Your task to perform on an android device: View the shopping cart on ebay.com. Search for "energizer triple a" on ebay.com, select the first entry, and add it to the cart. Image 0: 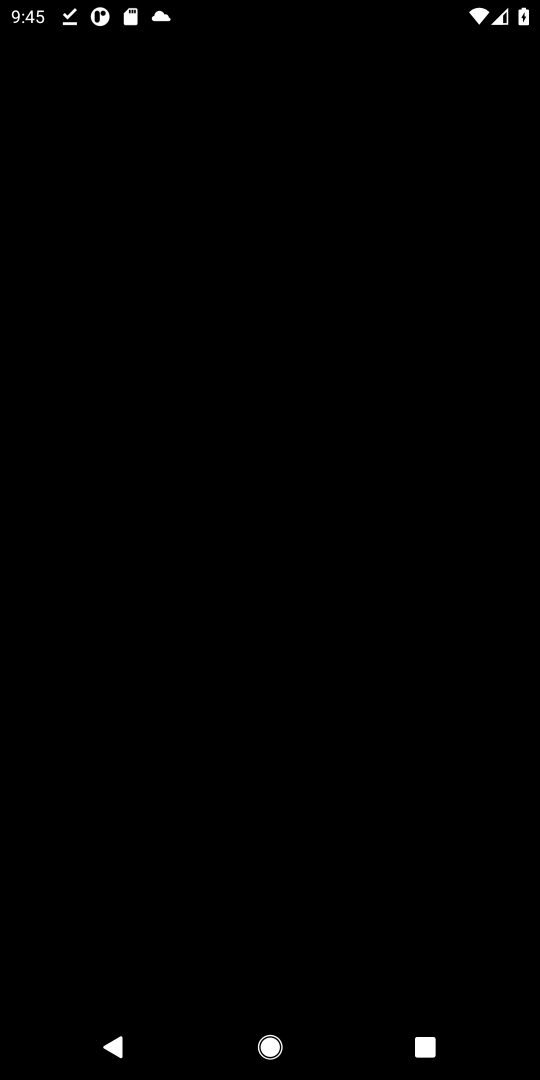
Step 0: press home button
Your task to perform on an android device: View the shopping cart on ebay.com. Search for "energizer triple a" on ebay.com, select the first entry, and add it to the cart. Image 1: 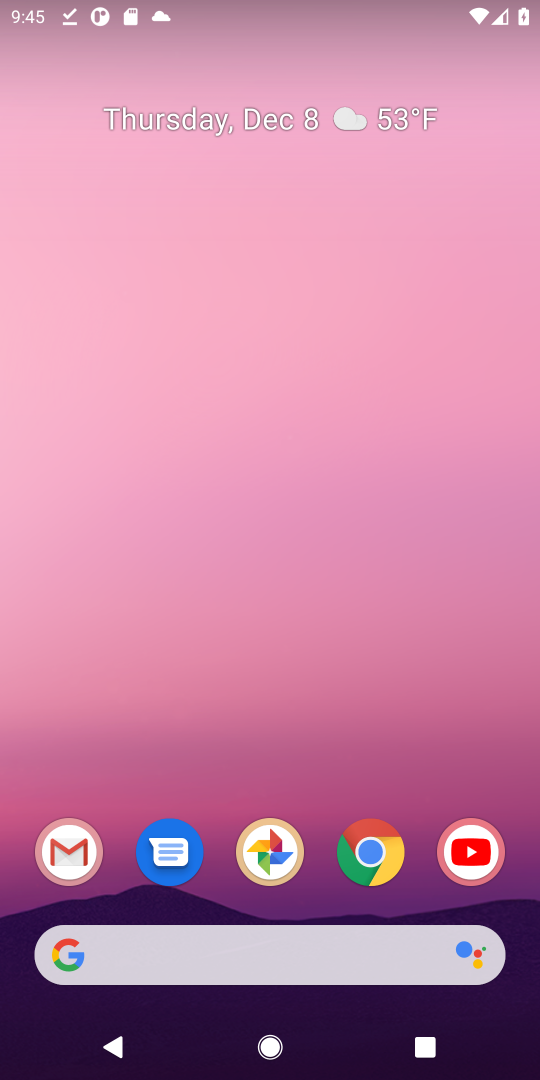
Step 1: click (255, 943)
Your task to perform on an android device: View the shopping cart on ebay.com. Search for "energizer triple a" on ebay.com, select the first entry, and add it to the cart. Image 2: 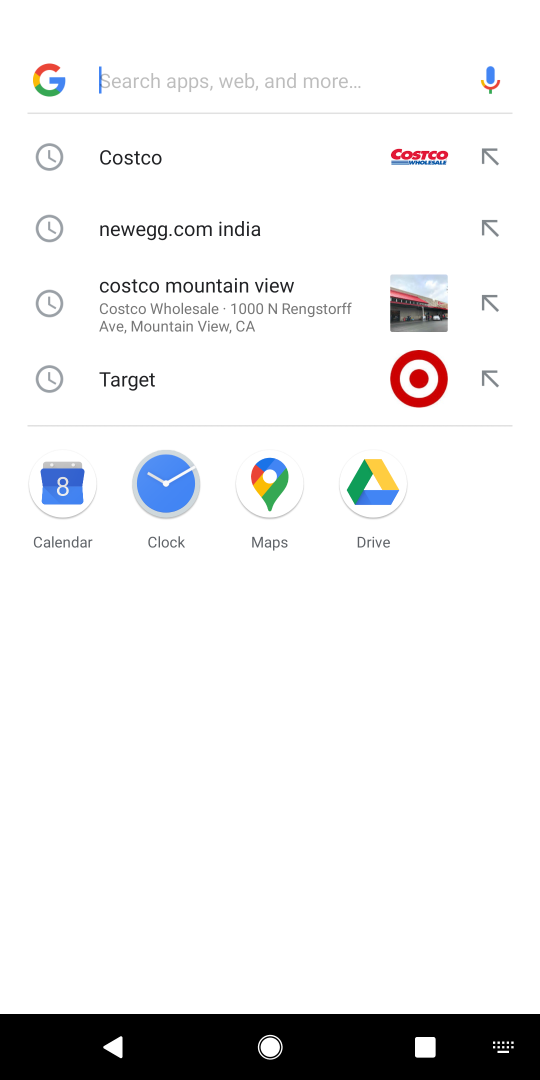
Step 2: type "ebay.com"
Your task to perform on an android device: View the shopping cart on ebay.com. Search for "energizer triple a" on ebay.com, select the first entry, and add it to the cart. Image 3: 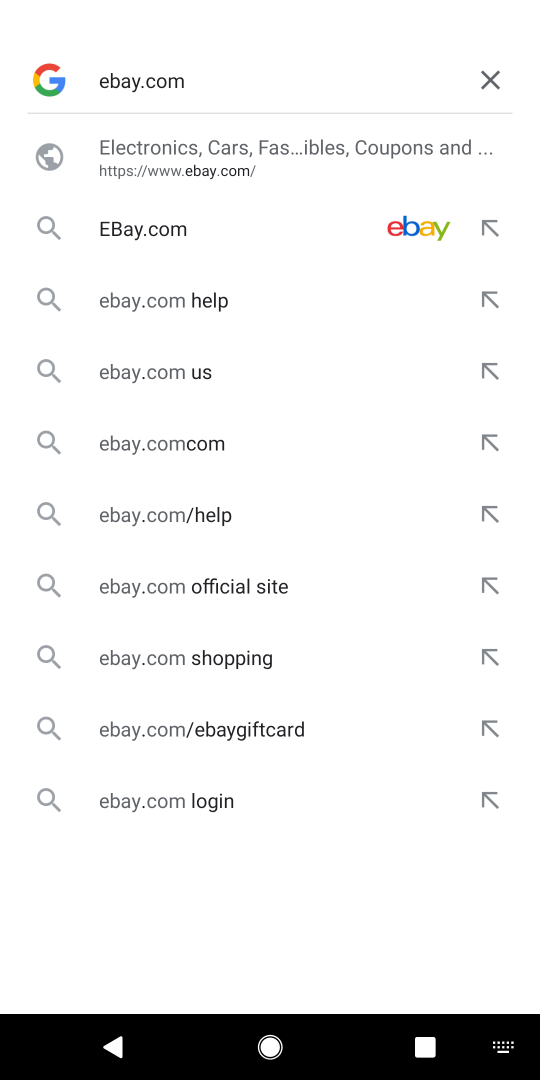
Step 3: click (142, 141)
Your task to perform on an android device: View the shopping cart on ebay.com. Search for "energizer triple a" on ebay.com, select the first entry, and add it to the cart. Image 4: 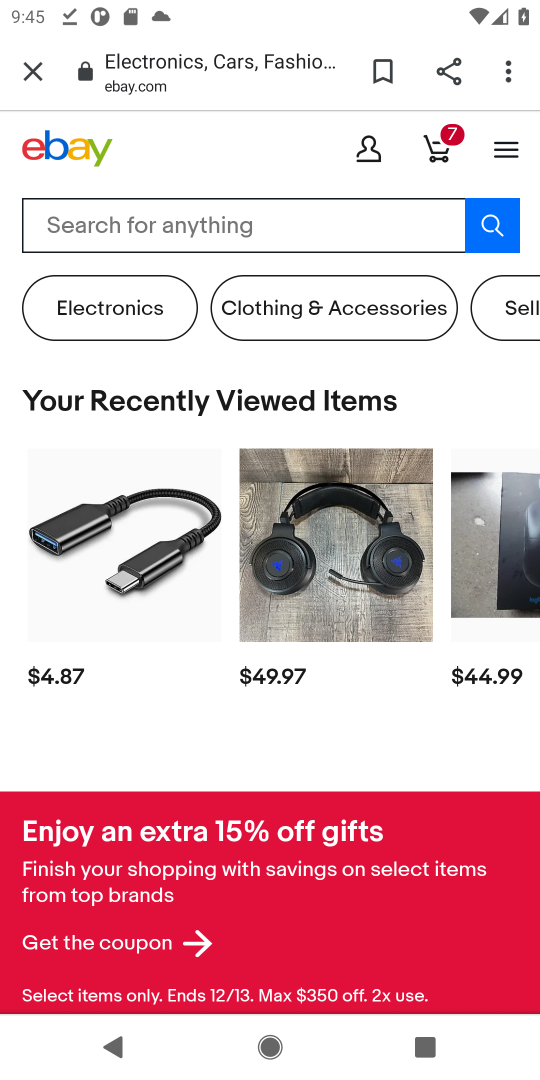
Step 4: click (185, 210)
Your task to perform on an android device: View the shopping cart on ebay.com. Search for "energizer triple a" on ebay.com, select the first entry, and add it to the cart. Image 5: 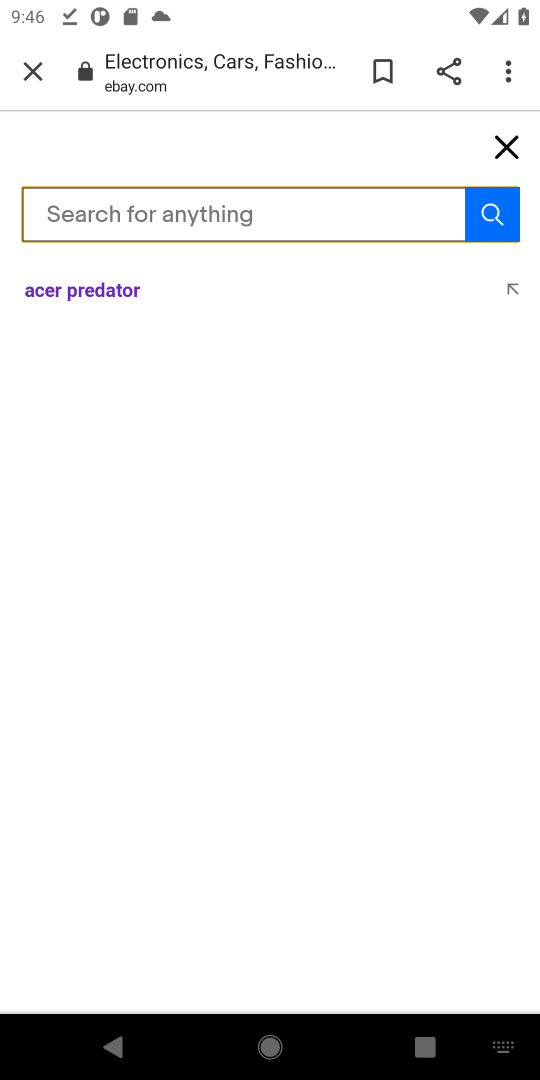
Step 5: type "energizer"
Your task to perform on an android device: View the shopping cart on ebay.com. Search for "energizer triple a" on ebay.com, select the first entry, and add it to the cart. Image 6: 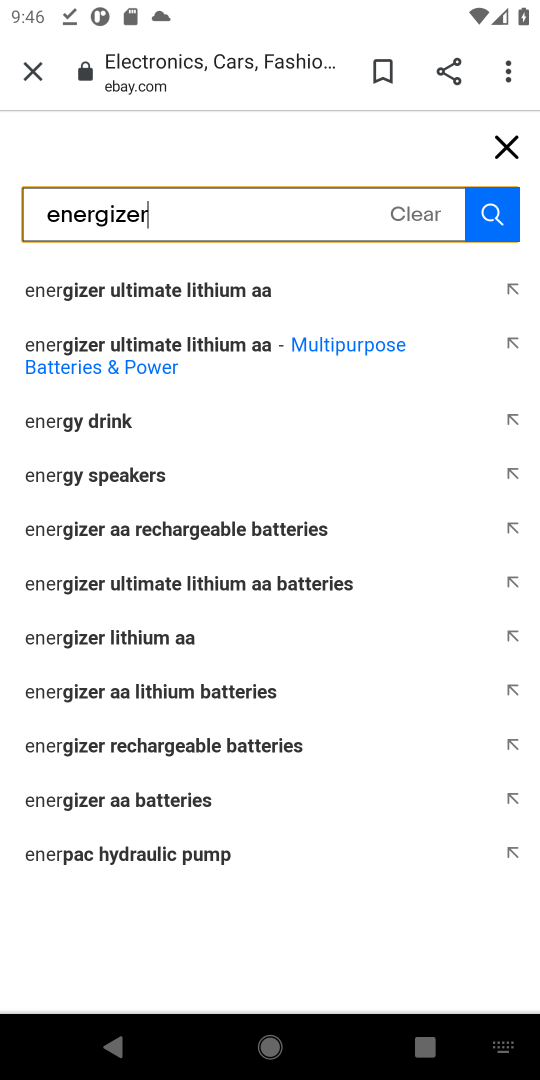
Step 6: click (162, 280)
Your task to perform on an android device: View the shopping cart on ebay.com. Search for "energizer triple a" on ebay.com, select the first entry, and add it to the cart. Image 7: 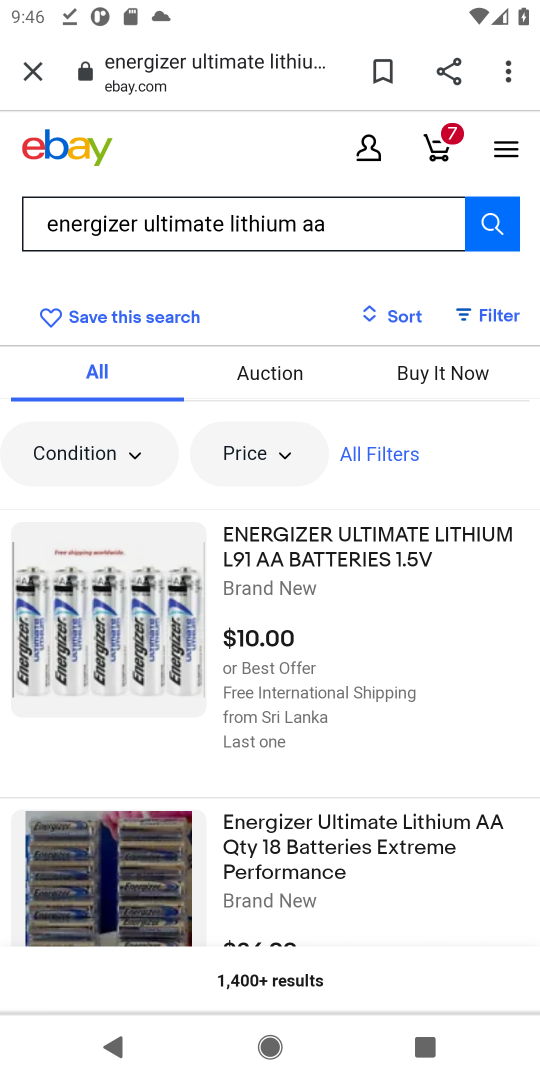
Step 7: click (147, 620)
Your task to perform on an android device: View the shopping cart on ebay.com. Search for "energizer triple a" on ebay.com, select the first entry, and add it to the cart. Image 8: 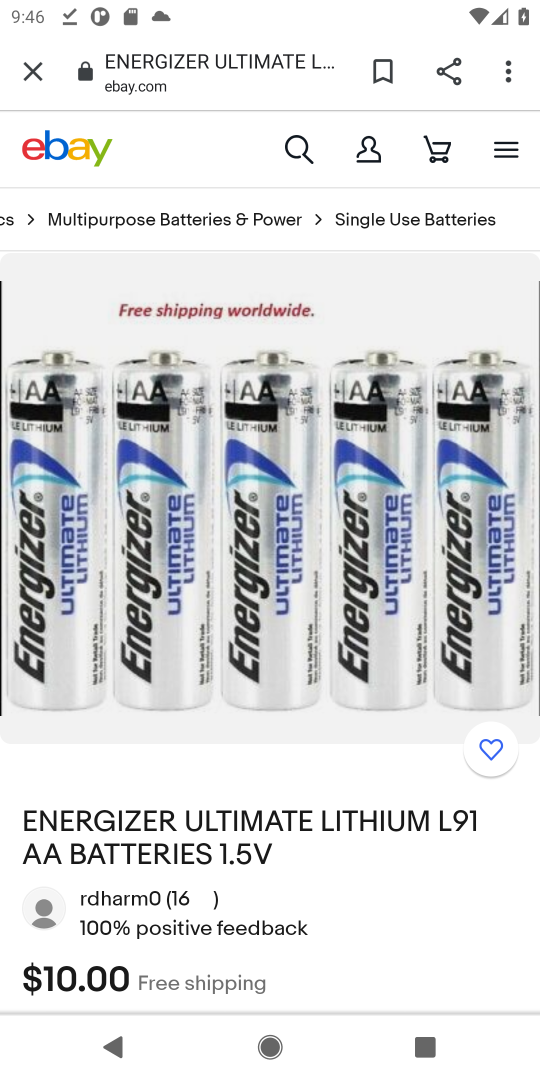
Step 8: drag from (220, 880) to (201, 528)
Your task to perform on an android device: View the shopping cart on ebay.com. Search for "energizer triple a" on ebay.com, select the first entry, and add it to the cart. Image 9: 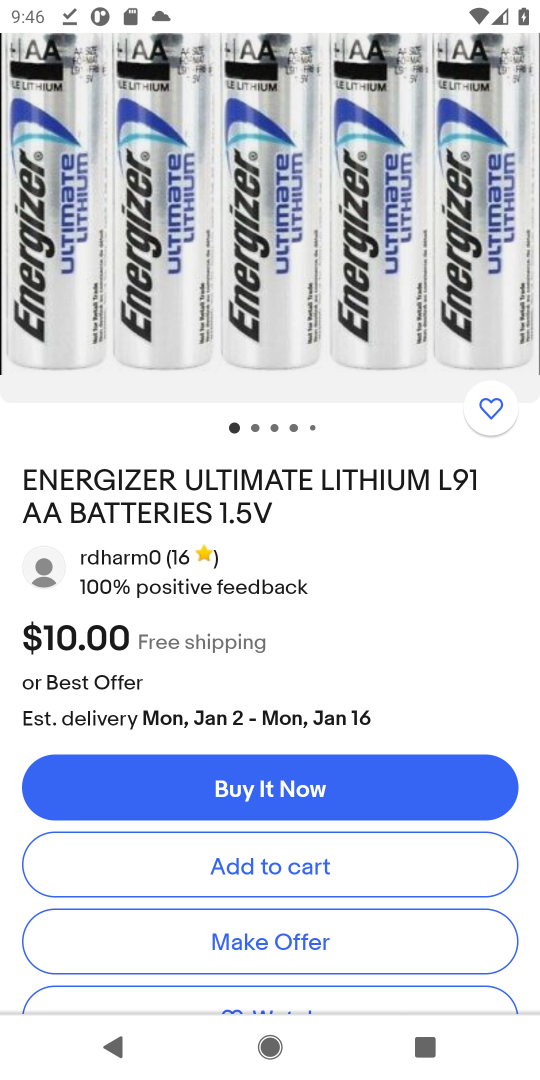
Step 9: click (324, 863)
Your task to perform on an android device: View the shopping cart on ebay.com. Search for "energizer triple a" on ebay.com, select the first entry, and add it to the cart. Image 10: 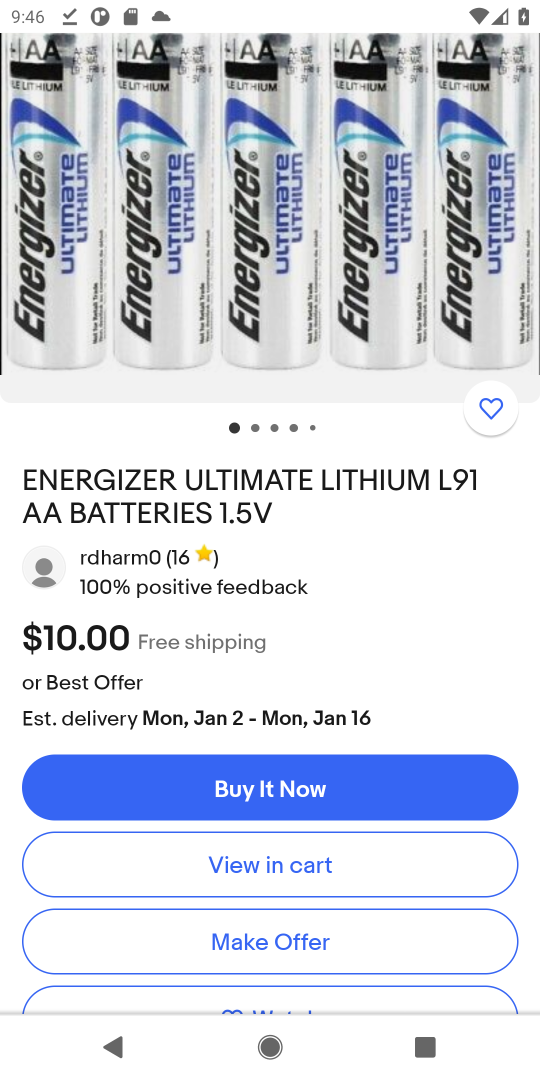
Step 10: task complete